Your task to perform on an android device: Toggle the flashlight Image 0: 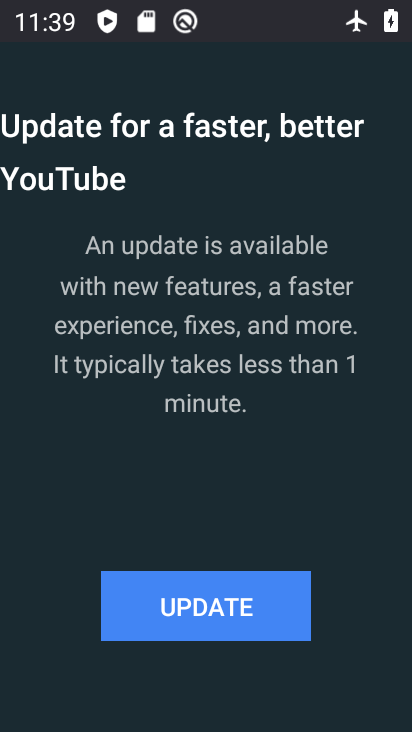
Step 0: press home button
Your task to perform on an android device: Toggle the flashlight Image 1: 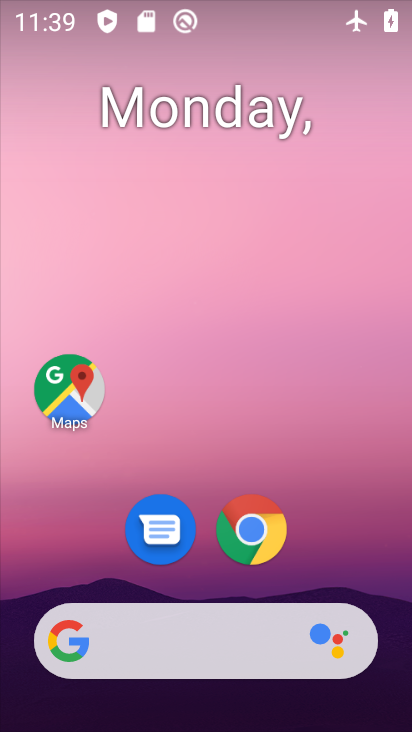
Step 1: drag from (214, 724) to (216, 122)
Your task to perform on an android device: Toggle the flashlight Image 2: 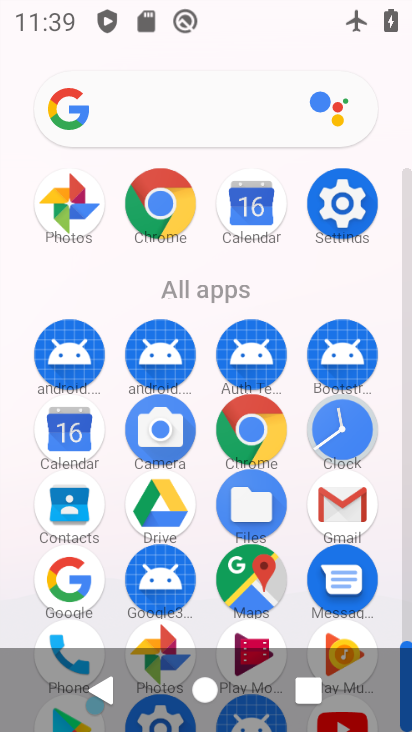
Step 2: click (354, 198)
Your task to perform on an android device: Toggle the flashlight Image 3: 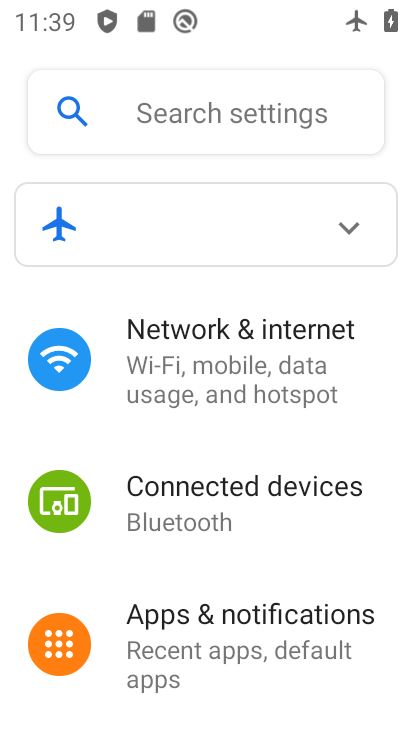
Step 3: task complete